Your task to perform on an android device: check storage Image 0: 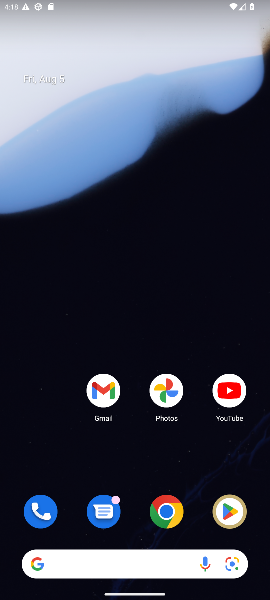
Step 0: drag from (132, 545) to (107, 0)
Your task to perform on an android device: check storage Image 1: 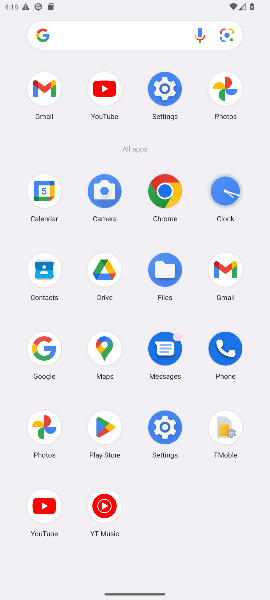
Step 1: click (173, 87)
Your task to perform on an android device: check storage Image 2: 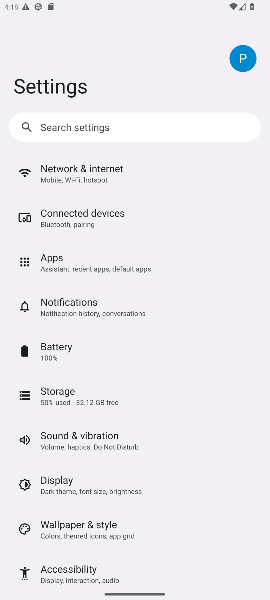
Step 2: click (35, 403)
Your task to perform on an android device: check storage Image 3: 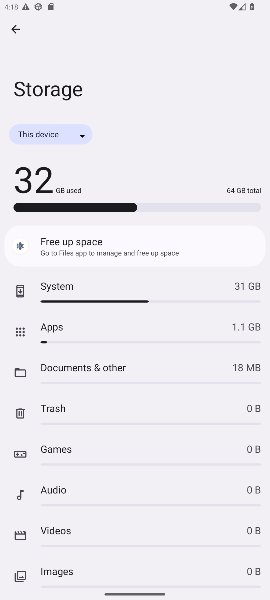
Step 3: task complete